Your task to perform on an android device: toggle location history Image 0: 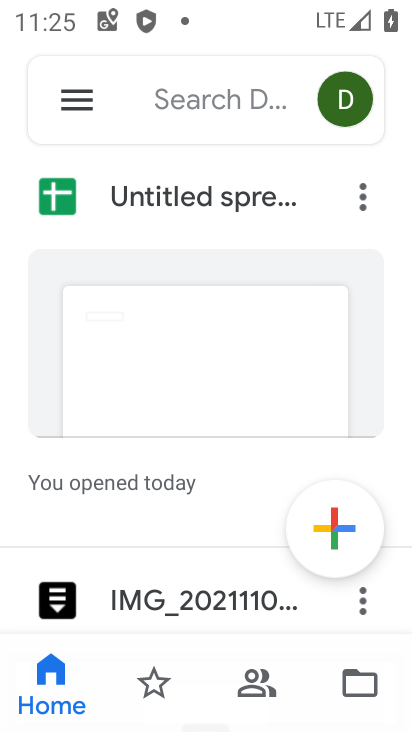
Step 0: press home button
Your task to perform on an android device: toggle location history Image 1: 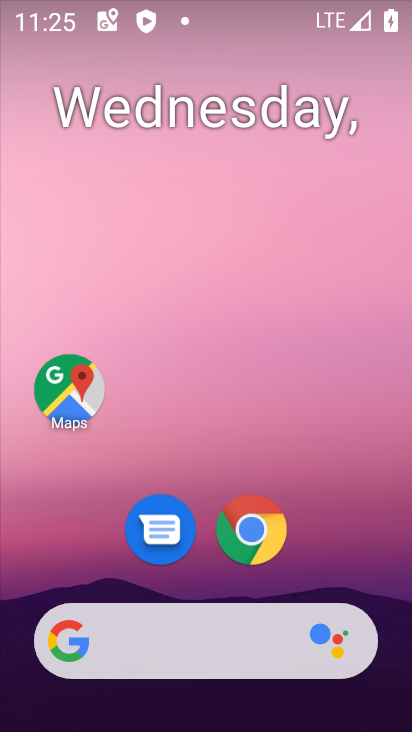
Step 1: drag from (244, 579) to (371, 26)
Your task to perform on an android device: toggle location history Image 2: 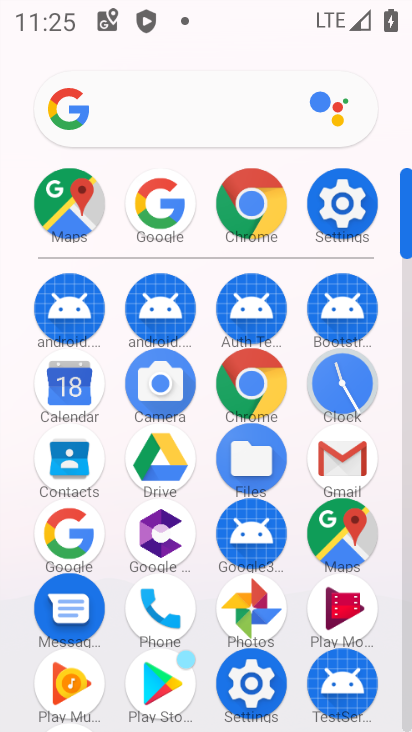
Step 2: click (342, 215)
Your task to perform on an android device: toggle location history Image 3: 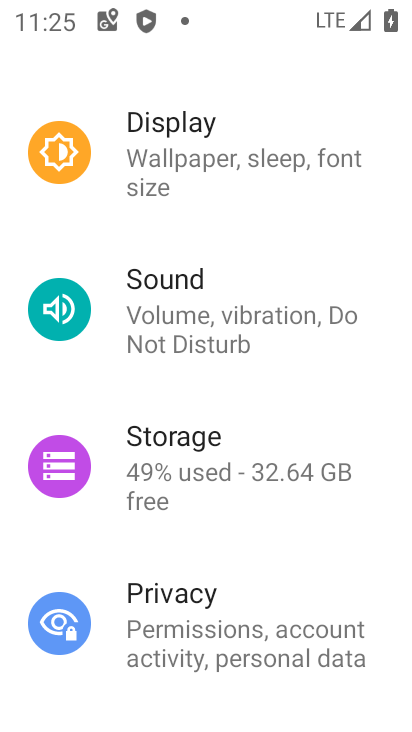
Step 3: drag from (259, 523) to (196, 135)
Your task to perform on an android device: toggle location history Image 4: 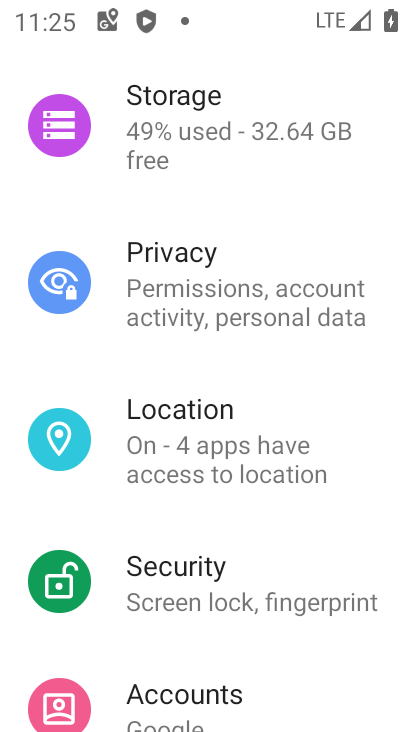
Step 4: drag from (235, 188) to (259, 676)
Your task to perform on an android device: toggle location history Image 5: 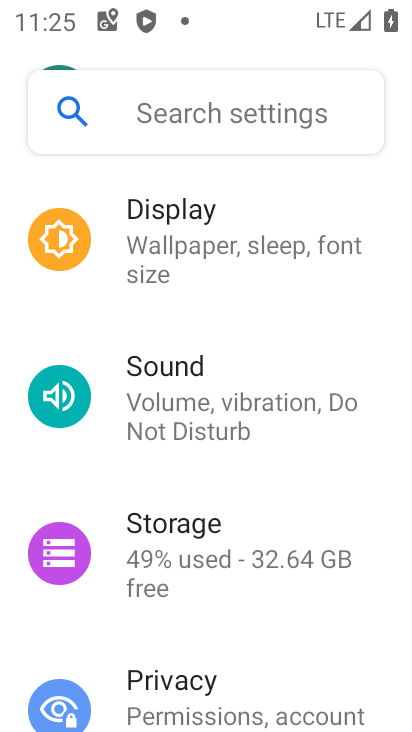
Step 5: drag from (200, 286) to (229, 666)
Your task to perform on an android device: toggle location history Image 6: 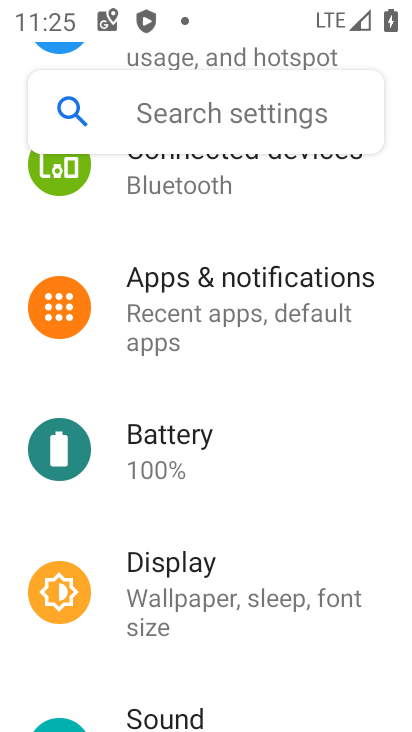
Step 6: drag from (245, 293) to (281, 639)
Your task to perform on an android device: toggle location history Image 7: 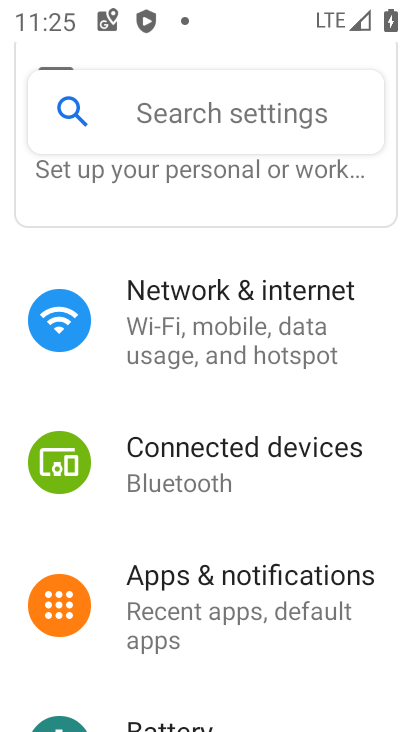
Step 7: drag from (273, 546) to (237, 142)
Your task to perform on an android device: toggle location history Image 8: 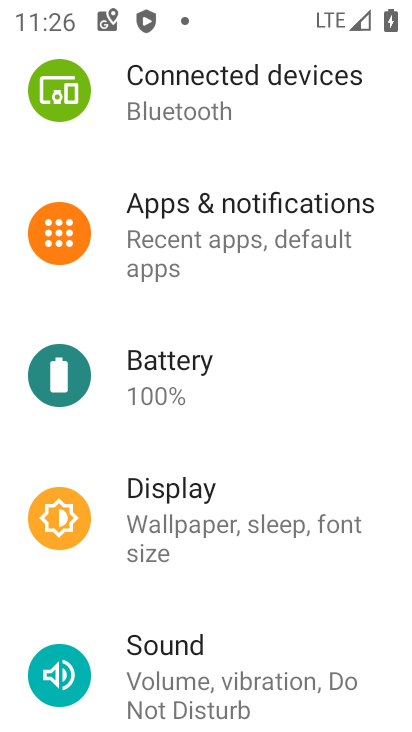
Step 8: drag from (251, 527) to (257, 164)
Your task to perform on an android device: toggle location history Image 9: 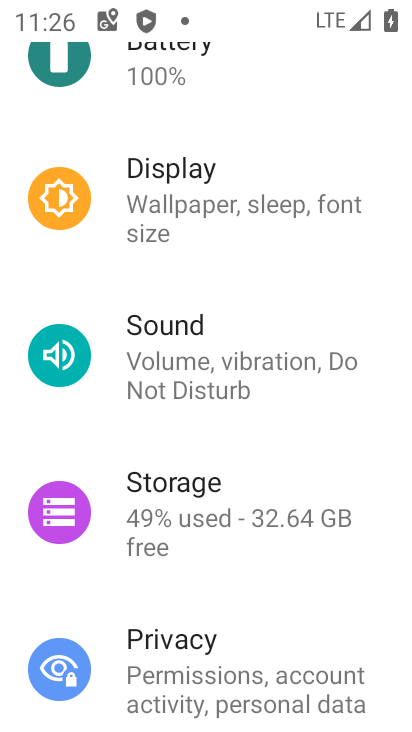
Step 9: drag from (256, 540) to (223, 162)
Your task to perform on an android device: toggle location history Image 10: 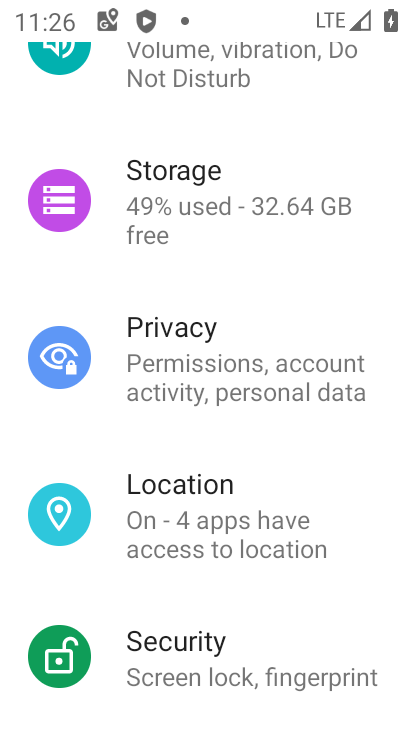
Step 10: click (247, 482)
Your task to perform on an android device: toggle location history Image 11: 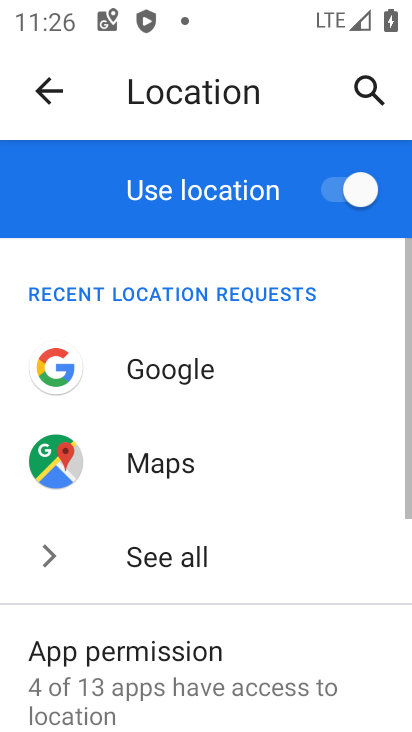
Step 11: drag from (245, 558) to (167, 139)
Your task to perform on an android device: toggle location history Image 12: 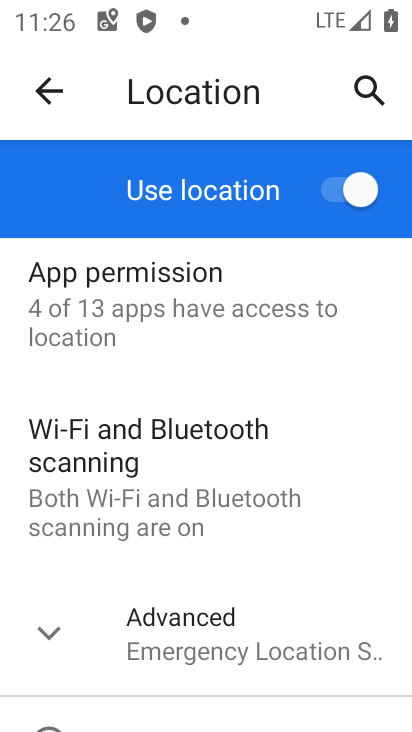
Step 12: click (209, 624)
Your task to perform on an android device: toggle location history Image 13: 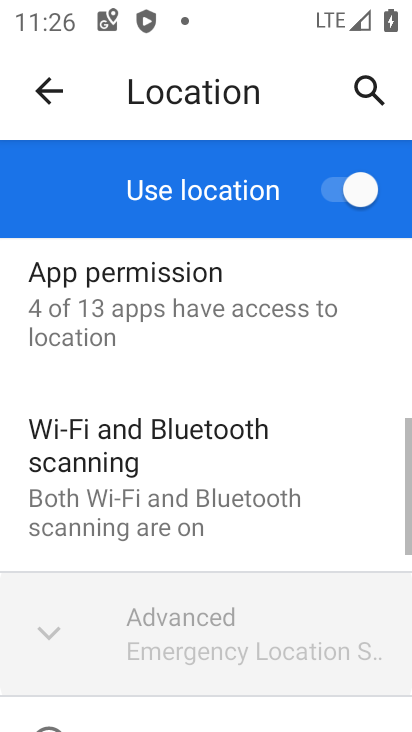
Step 13: drag from (209, 624) to (185, 242)
Your task to perform on an android device: toggle location history Image 14: 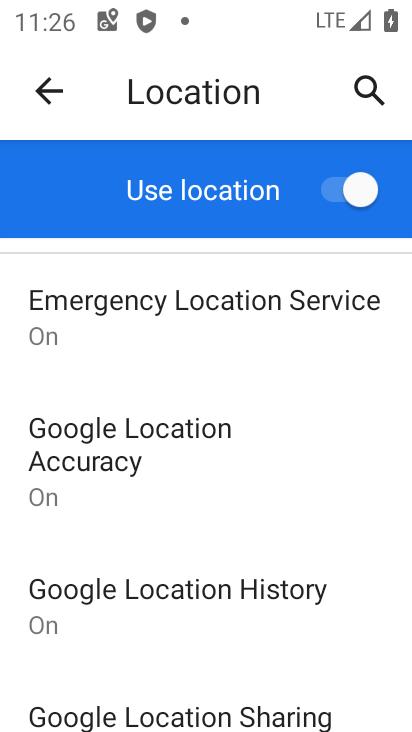
Step 14: click (216, 591)
Your task to perform on an android device: toggle location history Image 15: 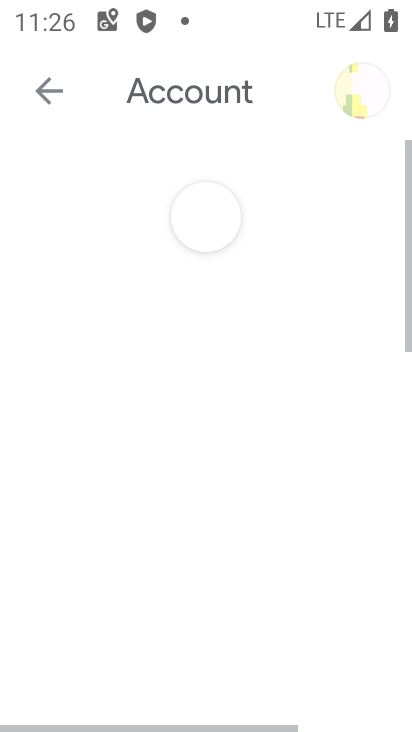
Step 15: drag from (177, 556) to (145, 88)
Your task to perform on an android device: toggle location history Image 16: 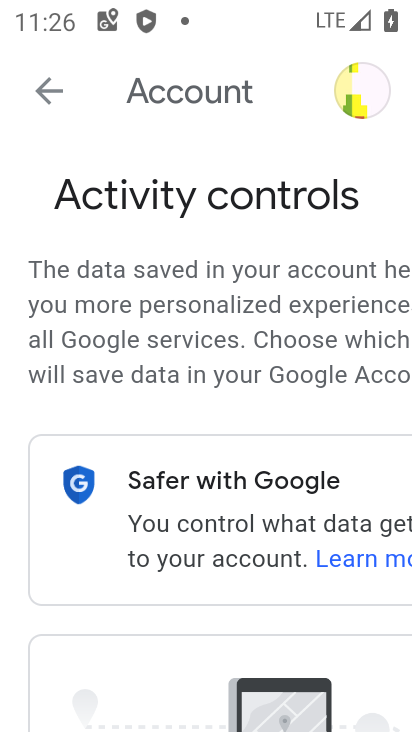
Step 16: drag from (308, 647) to (197, 178)
Your task to perform on an android device: toggle location history Image 17: 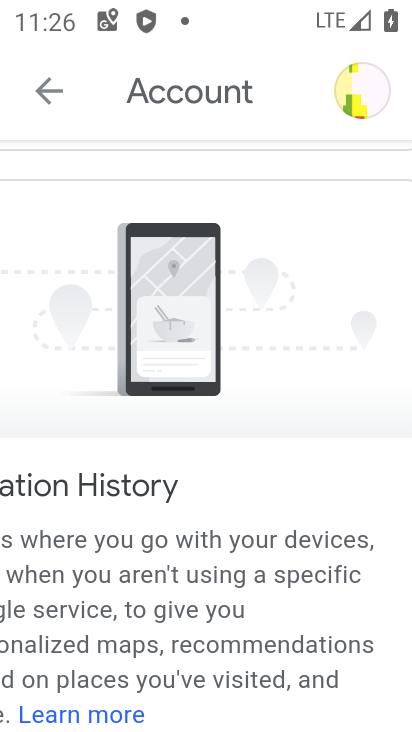
Step 17: drag from (340, 617) to (265, 123)
Your task to perform on an android device: toggle location history Image 18: 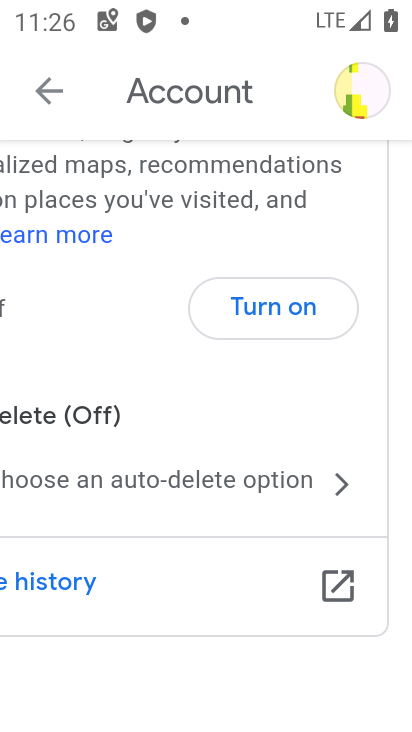
Step 18: click (316, 324)
Your task to perform on an android device: toggle location history Image 19: 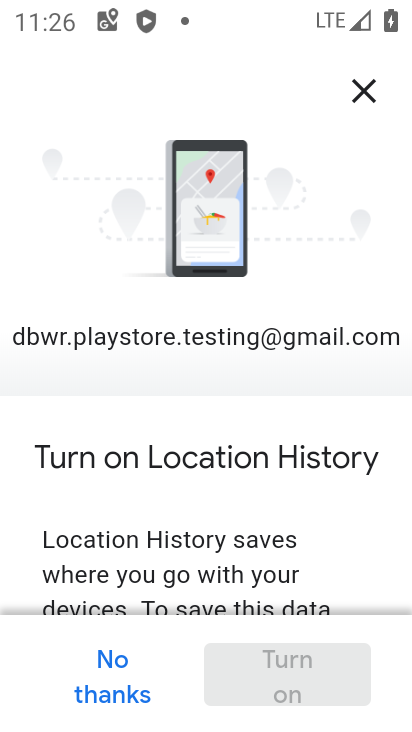
Step 19: drag from (325, 590) to (250, 144)
Your task to perform on an android device: toggle location history Image 20: 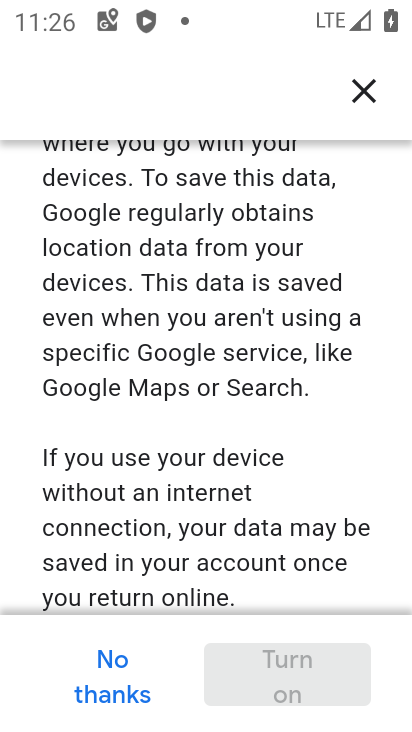
Step 20: drag from (297, 598) to (212, 72)
Your task to perform on an android device: toggle location history Image 21: 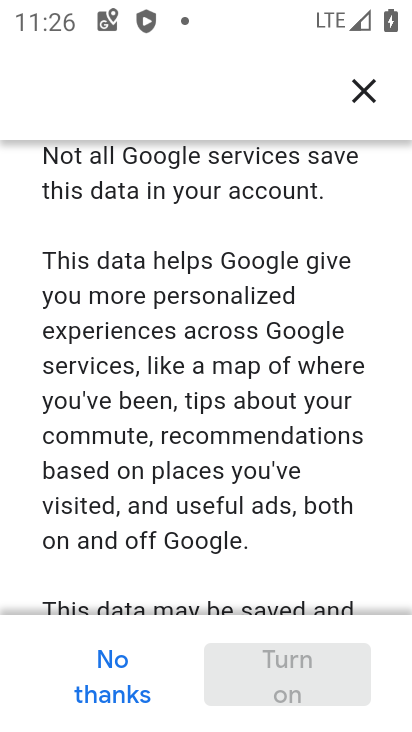
Step 21: drag from (276, 568) to (205, 35)
Your task to perform on an android device: toggle location history Image 22: 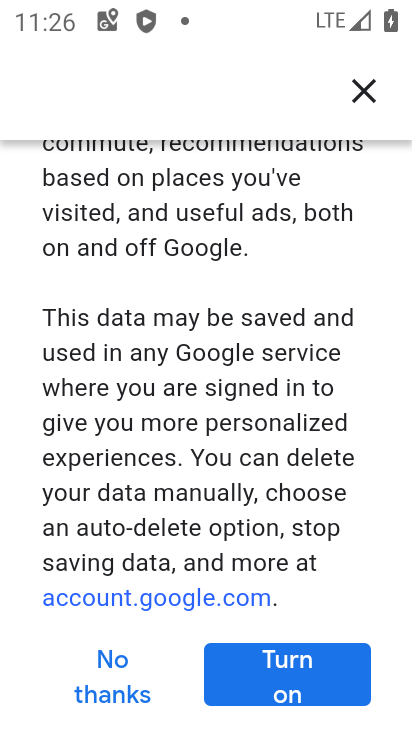
Step 22: click (279, 667)
Your task to perform on an android device: toggle location history Image 23: 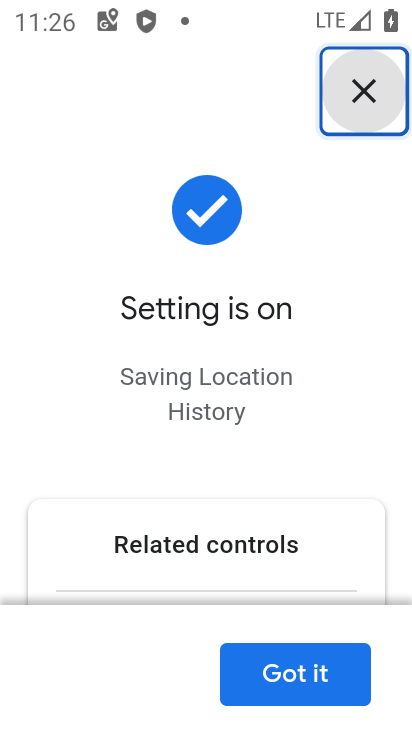
Step 23: click (283, 671)
Your task to perform on an android device: toggle location history Image 24: 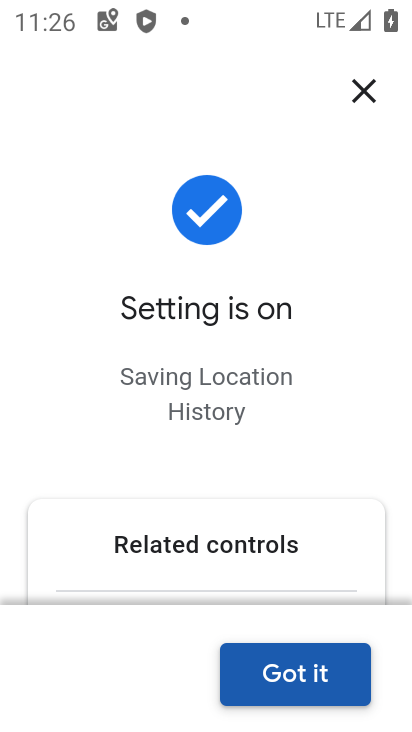
Step 24: task complete